Your task to perform on an android device: Go to Maps Image 0: 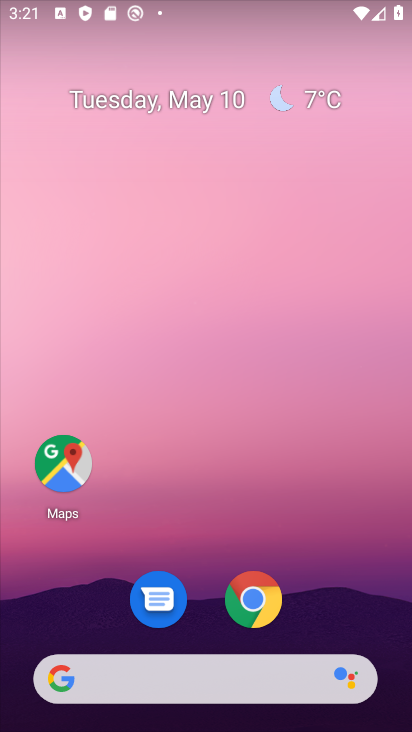
Step 0: drag from (246, 644) to (213, 143)
Your task to perform on an android device: Go to Maps Image 1: 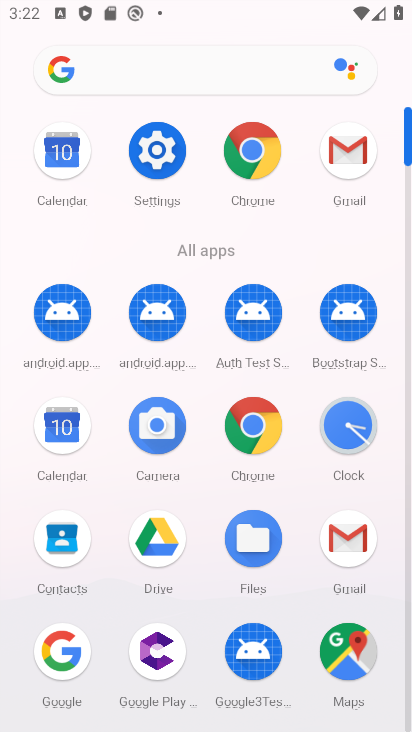
Step 1: click (344, 667)
Your task to perform on an android device: Go to Maps Image 2: 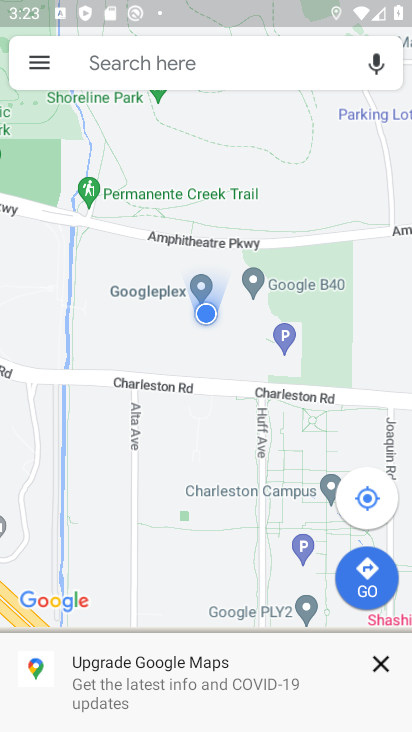
Step 2: click (180, 63)
Your task to perform on an android device: Go to Maps Image 3: 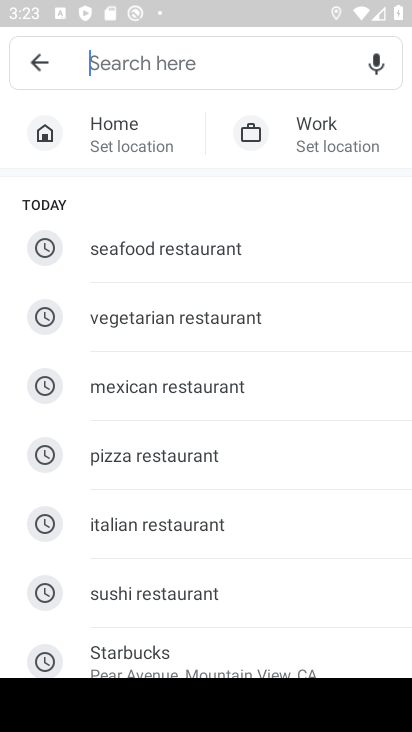
Step 3: task complete